Your task to perform on an android device: turn on the 24-hour format for clock Image 0: 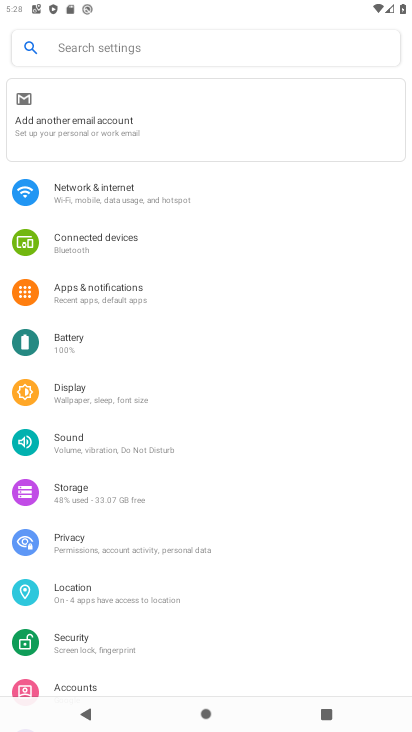
Step 0: drag from (160, 584) to (175, 352)
Your task to perform on an android device: turn on the 24-hour format for clock Image 1: 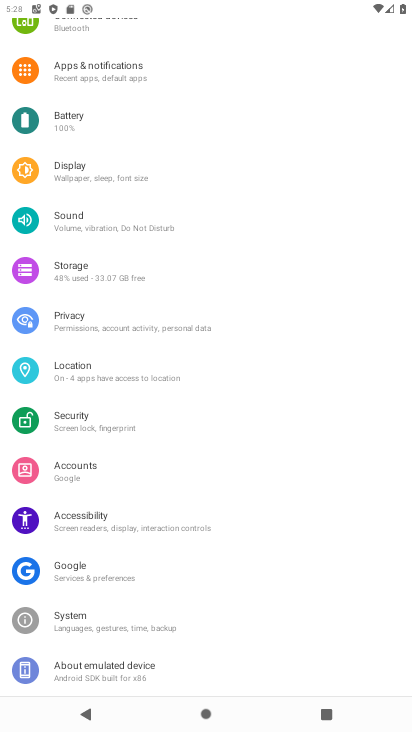
Step 1: click (135, 629)
Your task to perform on an android device: turn on the 24-hour format for clock Image 2: 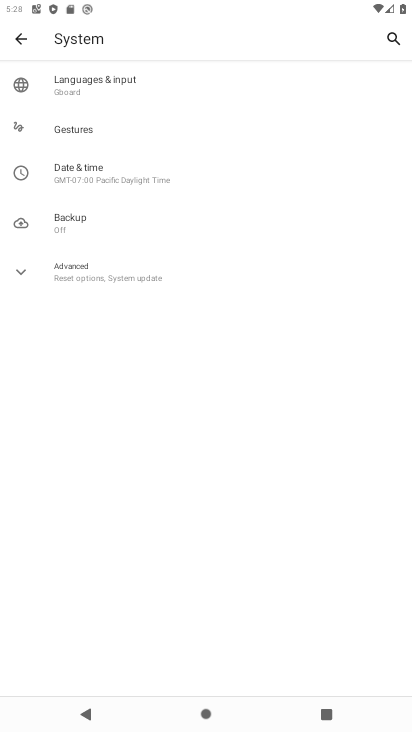
Step 2: click (144, 190)
Your task to perform on an android device: turn on the 24-hour format for clock Image 3: 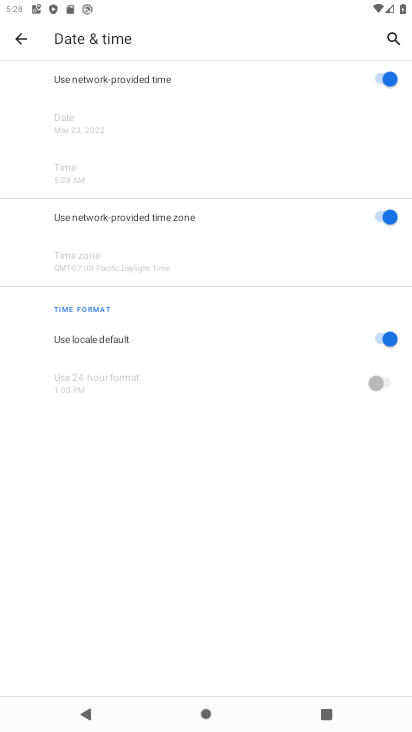
Step 3: click (370, 336)
Your task to perform on an android device: turn on the 24-hour format for clock Image 4: 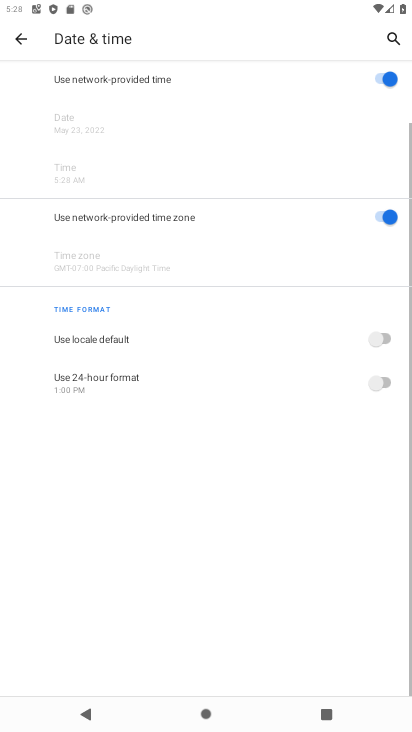
Step 4: click (385, 390)
Your task to perform on an android device: turn on the 24-hour format for clock Image 5: 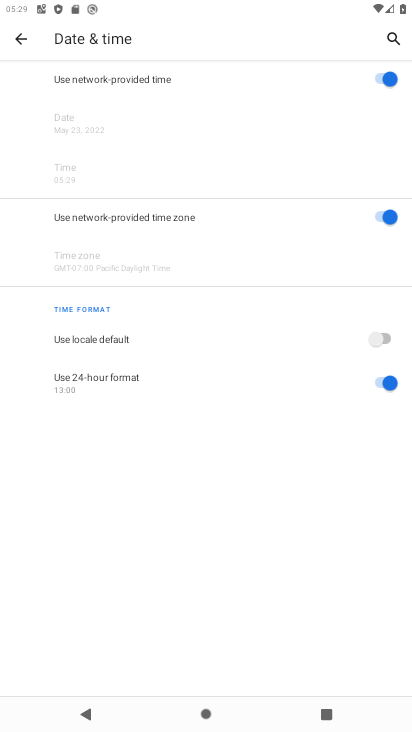
Step 5: task complete